Your task to perform on an android device: Open display settings Image 0: 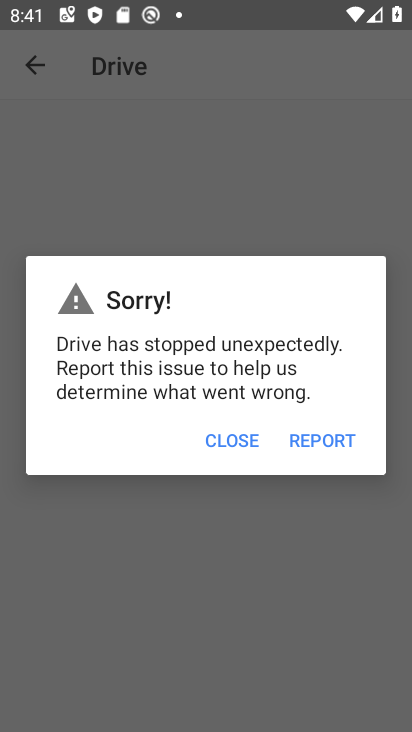
Step 0: press home button
Your task to perform on an android device: Open display settings Image 1: 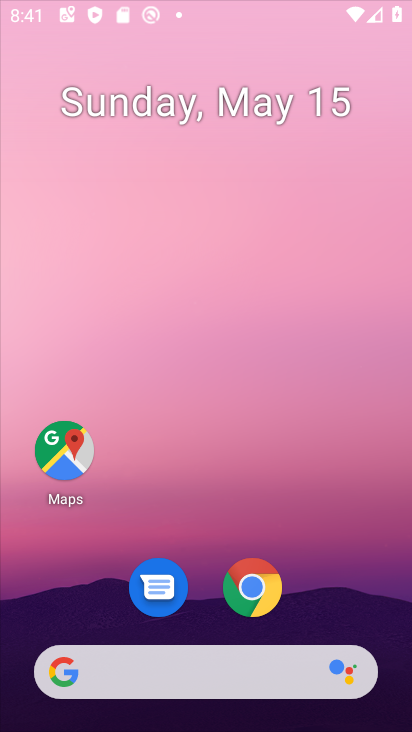
Step 1: drag from (386, 662) to (239, 110)
Your task to perform on an android device: Open display settings Image 2: 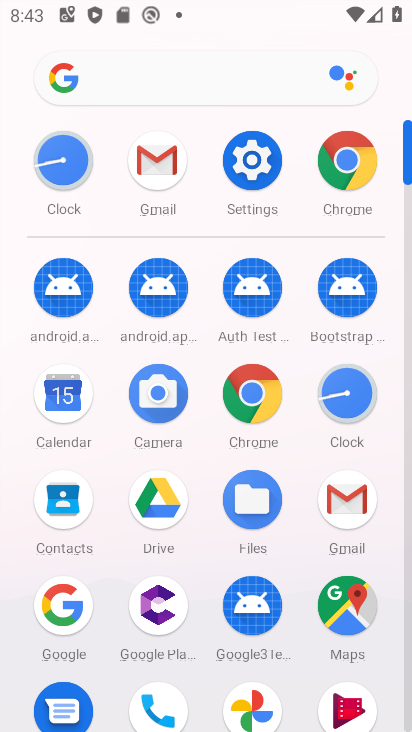
Step 2: click (242, 162)
Your task to perform on an android device: Open display settings Image 3: 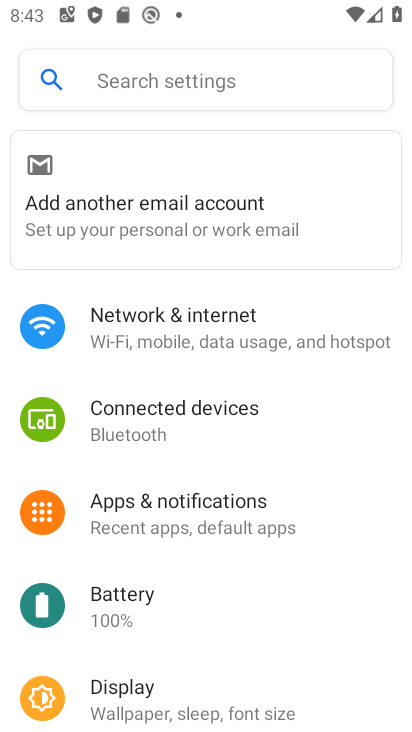
Step 3: click (166, 697)
Your task to perform on an android device: Open display settings Image 4: 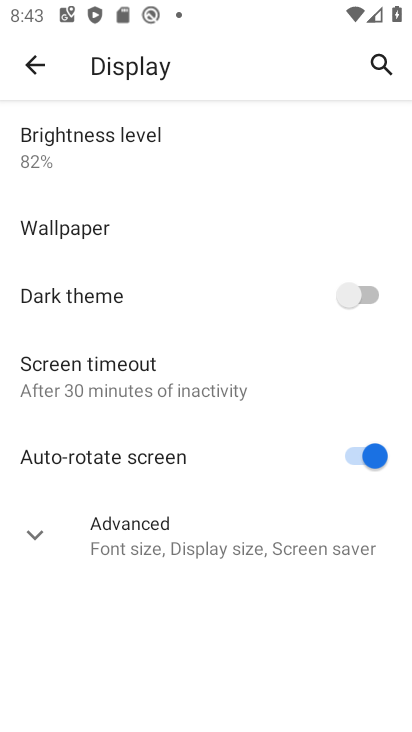
Step 4: task complete